Your task to perform on an android device: allow cookies in the chrome app Image 0: 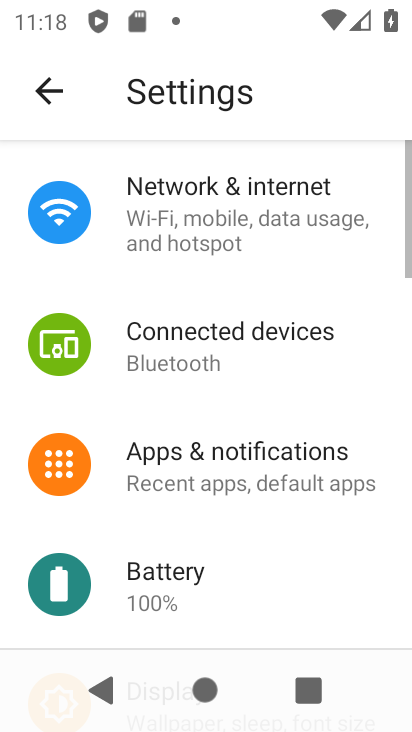
Step 0: press home button
Your task to perform on an android device: allow cookies in the chrome app Image 1: 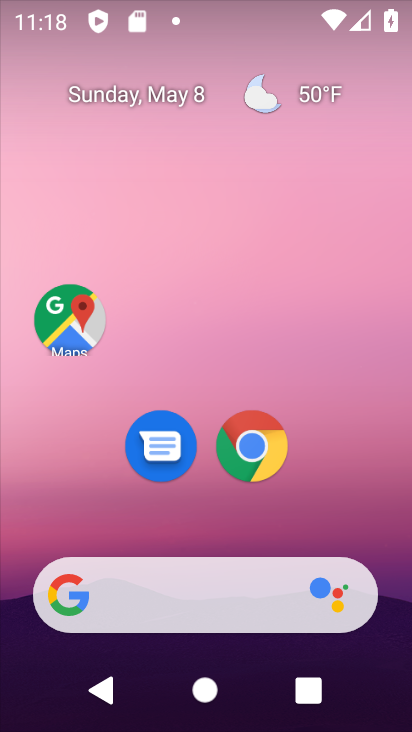
Step 1: click (232, 450)
Your task to perform on an android device: allow cookies in the chrome app Image 2: 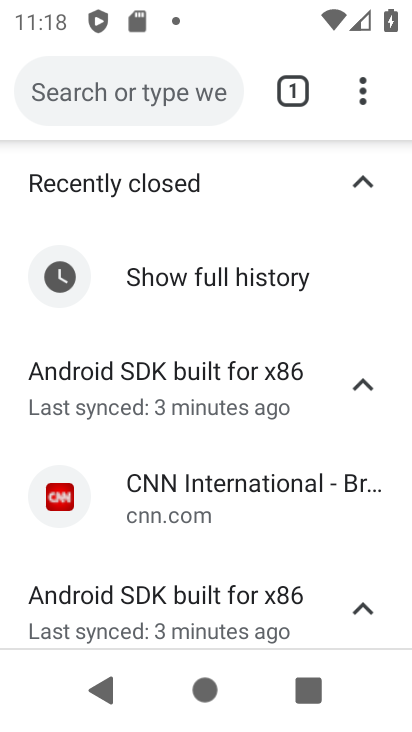
Step 2: click (366, 89)
Your task to perform on an android device: allow cookies in the chrome app Image 3: 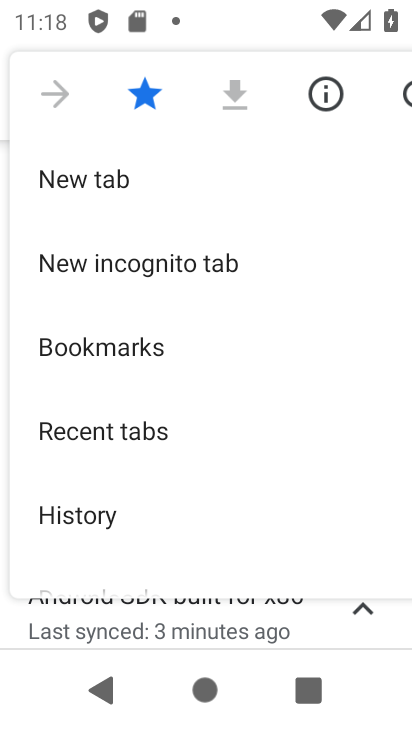
Step 3: drag from (247, 500) to (220, 344)
Your task to perform on an android device: allow cookies in the chrome app Image 4: 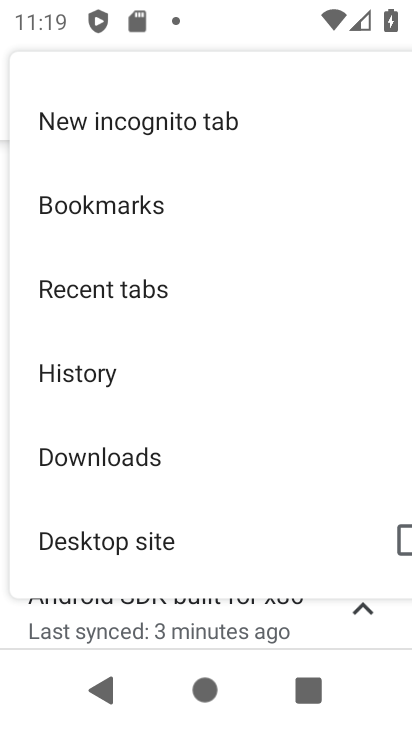
Step 4: drag from (153, 522) to (141, 352)
Your task to perform on an android device: allow cookies in the chrome app Image 5: 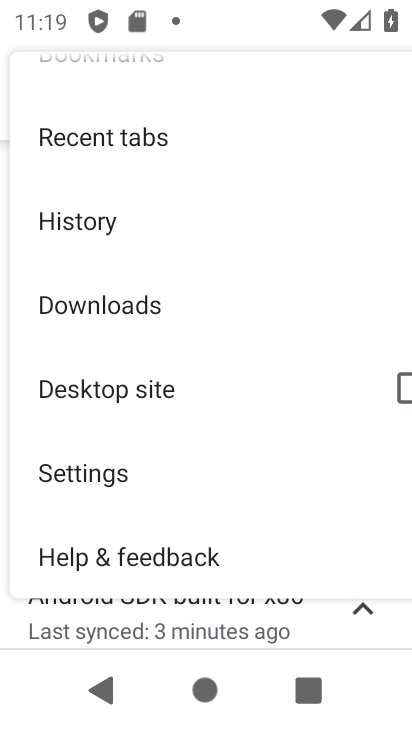
Step 5: click (135, 482)
Your task to perform on an android device: allow cookies in the chrome app Image 6: 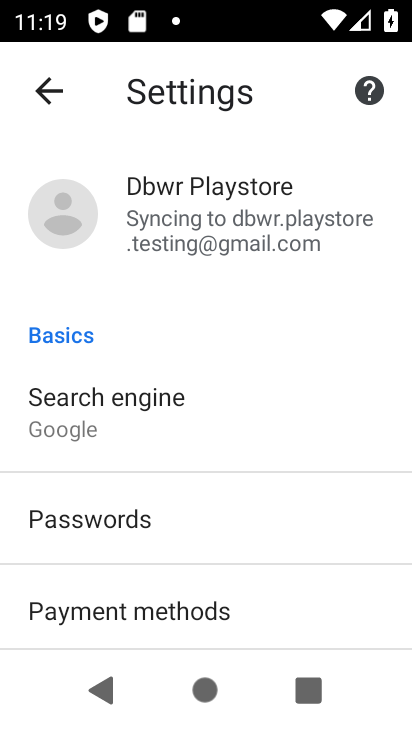
Step 6: drag from (168, 576) to (173, 405)
Your task to perform on an android device: allow cookies in the chrome app Image 7: 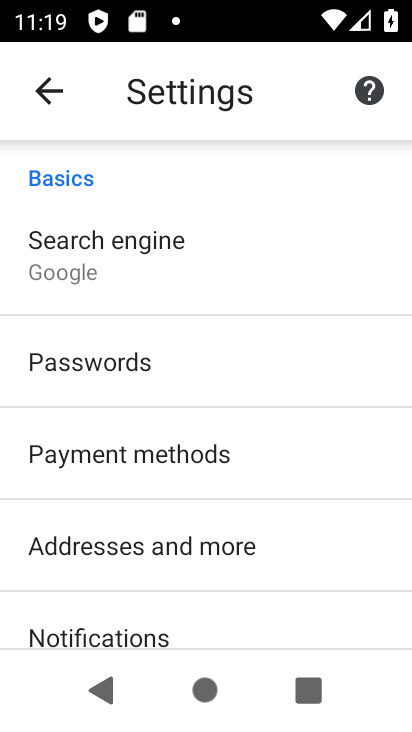
Step 7: drag from (228, 593) to (224, 396)
Your task to perform on an android device: allow cookies in the chrome app Image 8: 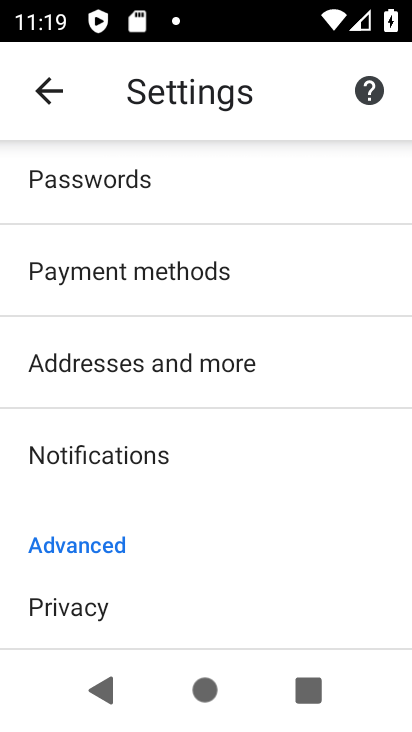
Step 8: drag from (216, 597) to (203, 415)
Your task to perform on an android device: allow cookies in the chrome app Image 9: 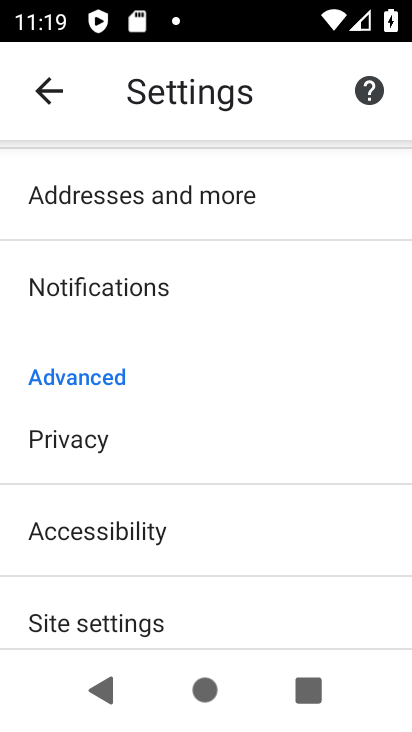
Step 9: click (178, 609)
Your task to perform on an android device: allow cookies in the chrome app Image 10: 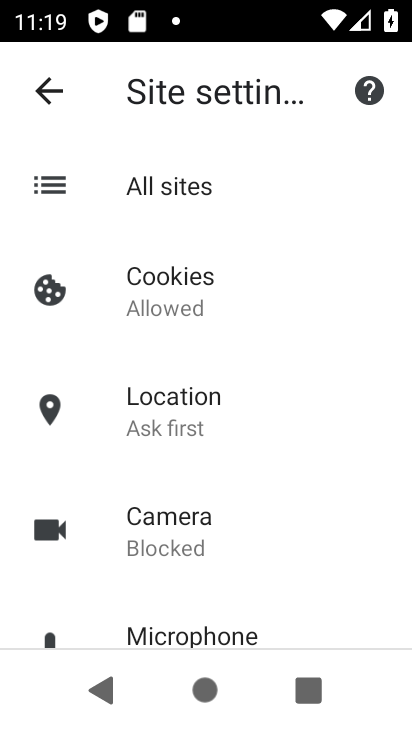
Step 10: click (171, 278)
Your task to perform on an android device: allow cookies in the chrome app Image 11: 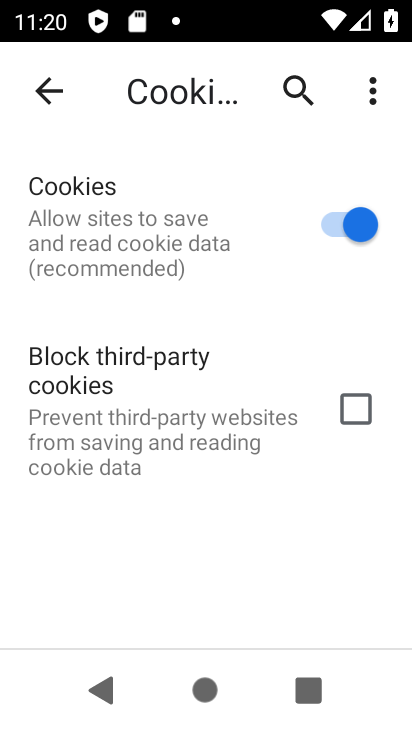
Step 11: task complete